Your task to perform on an android device: change timer sound Image 0: 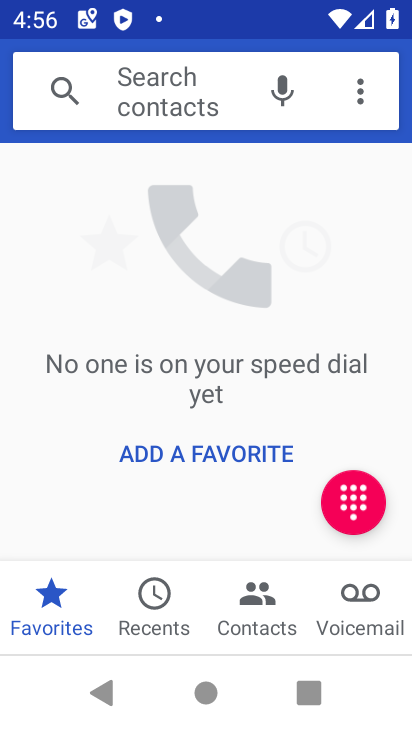
Step 0: press home button
Your task to perform on an android device: change timer sound Image 1: 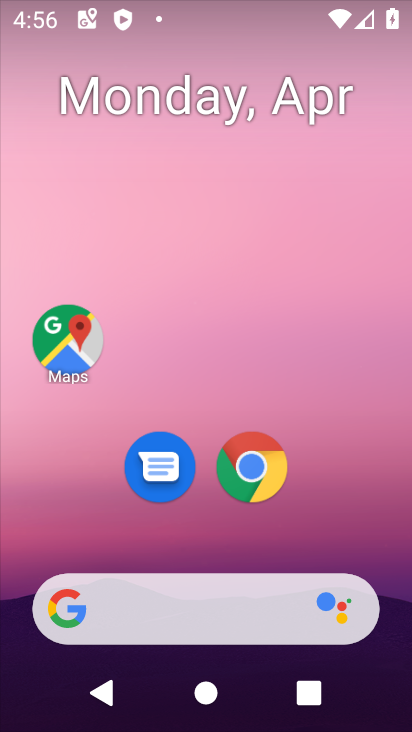
Step 1: drag from (293, 553) to (292, 3)
Your task to perform on an android device: change timer sound Image 2: 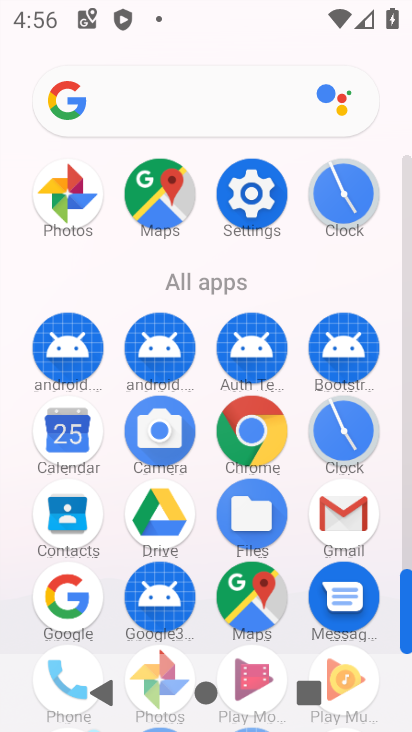
Step 2: click (347, 445)
Your task to perform on an android device: change timer sound Image 3: 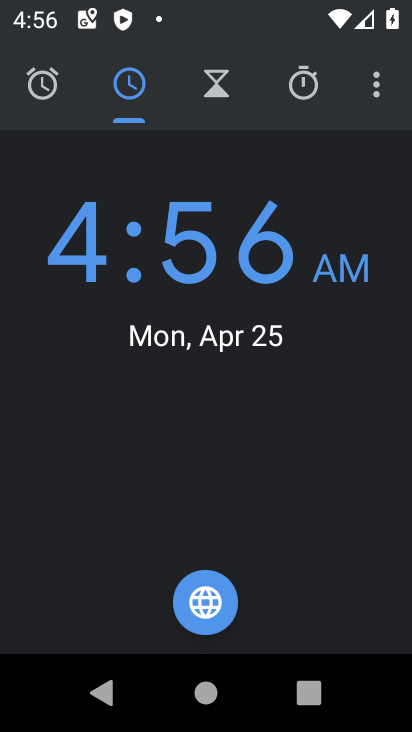
Step 3: click (362, 73)
Your task to perform on an android device: change timer sound Image 4: 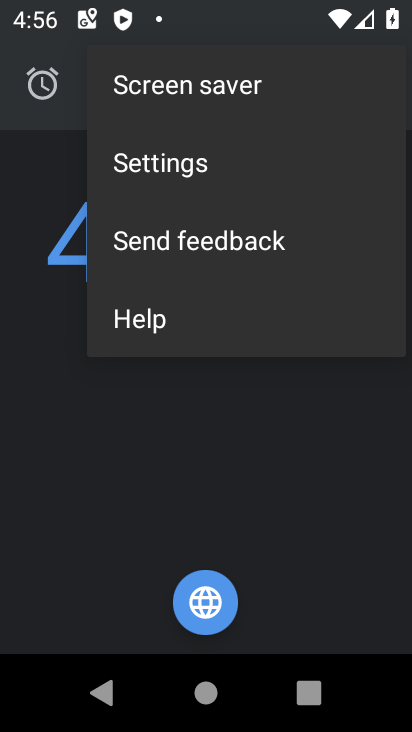
Step 4: click (255, 176)
Your task to perform on an android device: change timer sound Image 5: 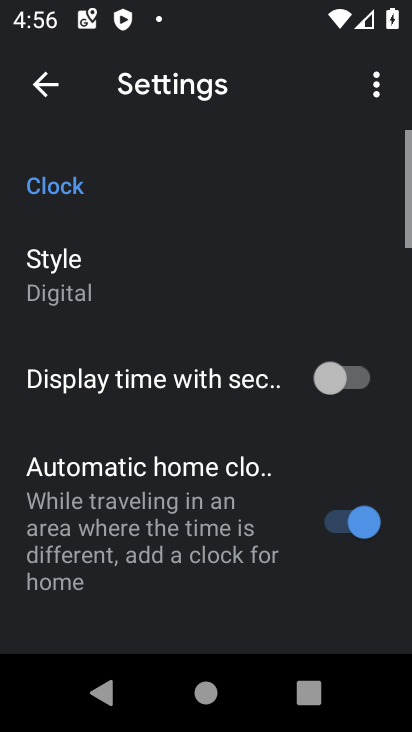
Step 5: drag from (282, 586) to (254, 105)
Your task to perform on an android device: change timer sound Image 6: 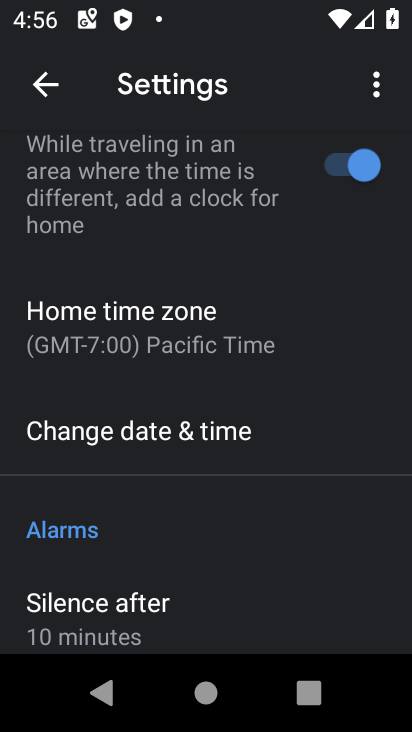
Step 6: drag from (224, 542) to (282, 1)
Your task to perform on an android device: change timer sound Image 7: 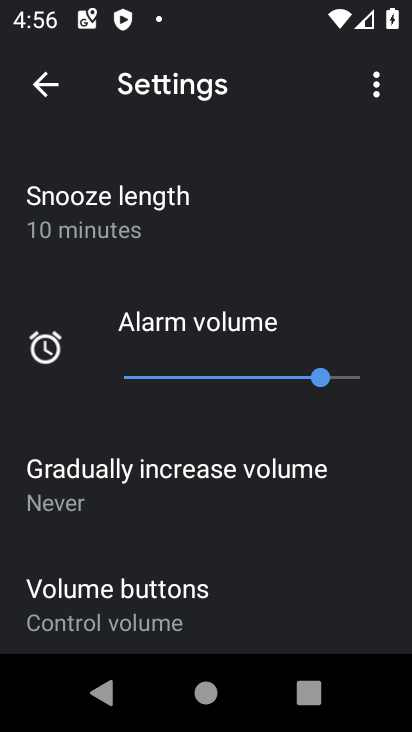
Step 7: drag from (274, 541) to (274, 23)
Your task to perform on an android device: change timer sound Image 8: 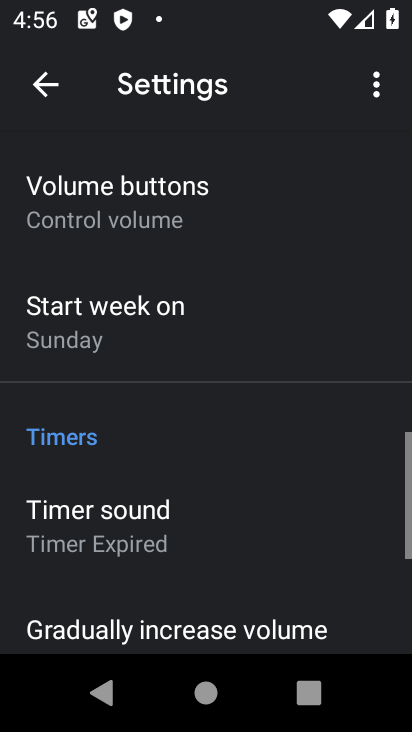
Step 8: click (178, 525)
Your task to perform on an android device: change timer sound Image 9: 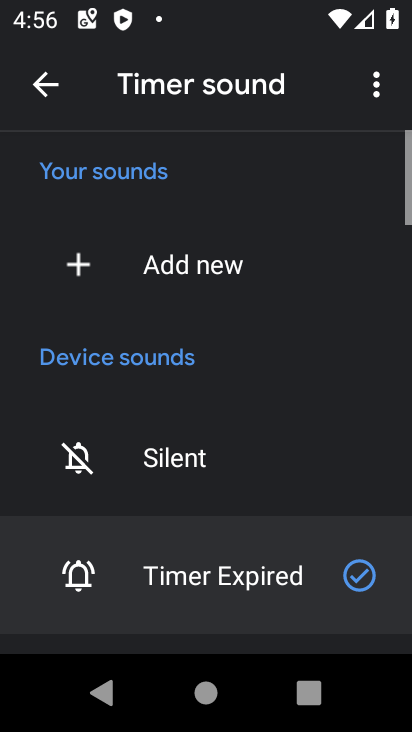
Step 9: drag from (254, 292) to (275, 100)
Your task to perform on an android device: change timer sound Image 10: 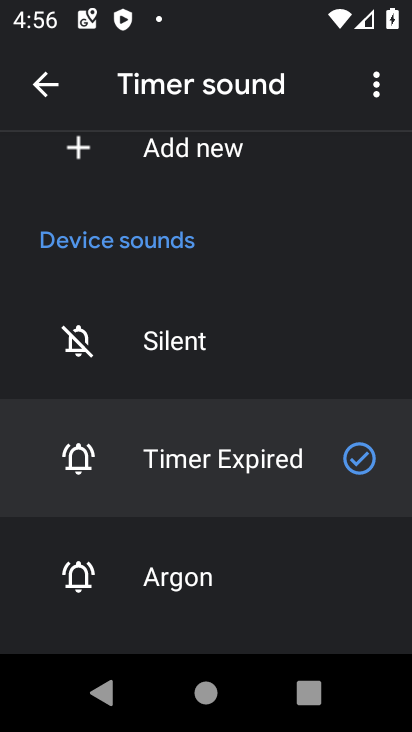
Step 10: click (201, 574)
Your task to perform on an android device: change timer sound Image 11: 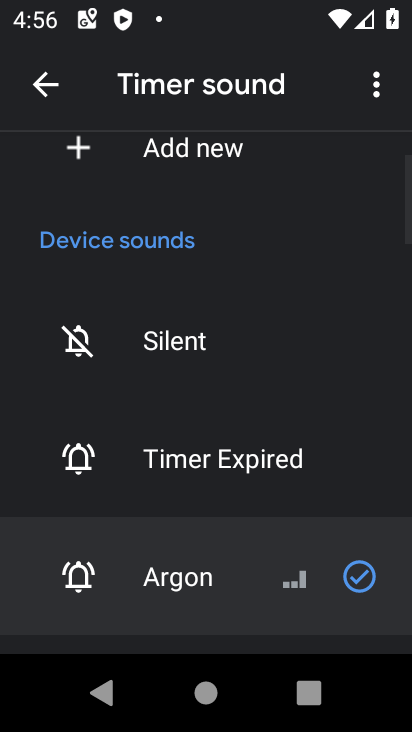
Step 11: task complete